Your task to perform on an android device: Search for seafood restaurants on Google Maps Image 0: 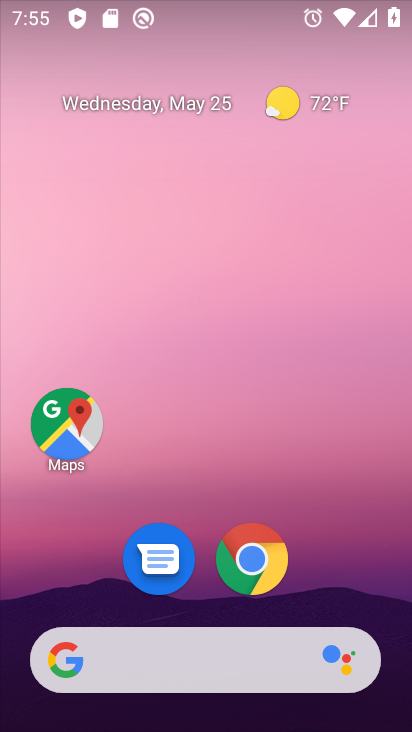
Step 0: drag from (201, 653) to (241, 217)
Your task to perform on an android device: Search for seafood restaurants on Google Maps Image 1: 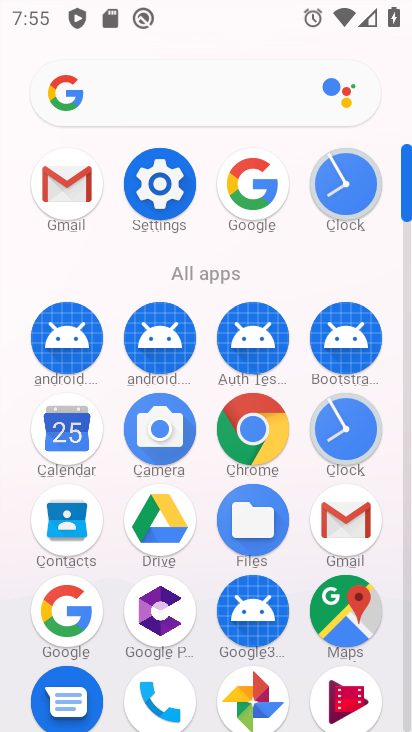
Step 1: click (339, 616)
Your task to perform on an android device: Search for seafood restaurants on Google Maps Image 2: 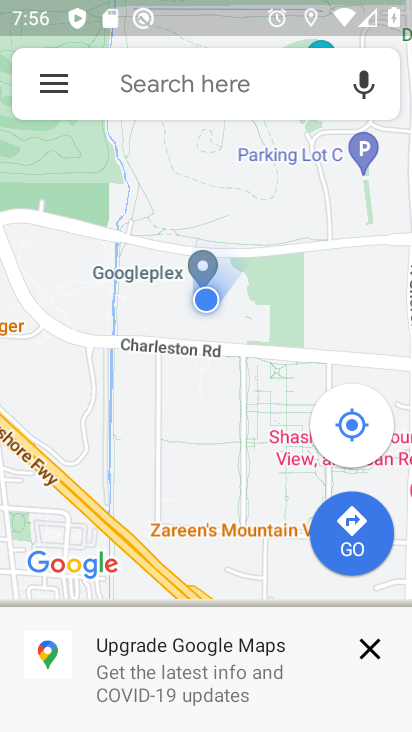
Step 2: click (205, 81)
Your task to perform on an android device: Search for seafood restaurants on Google Maps Image 3: 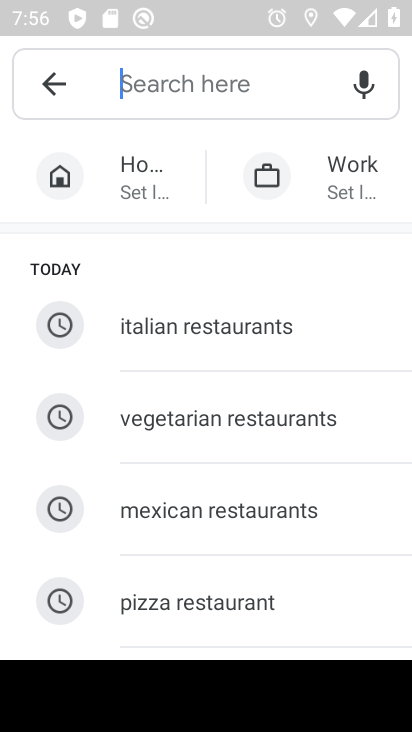
Step 3: drag from (216, 551) to (240, 170)
Your task to perform on an android device: Search for seafood restaurants on Google Maps Image 4: 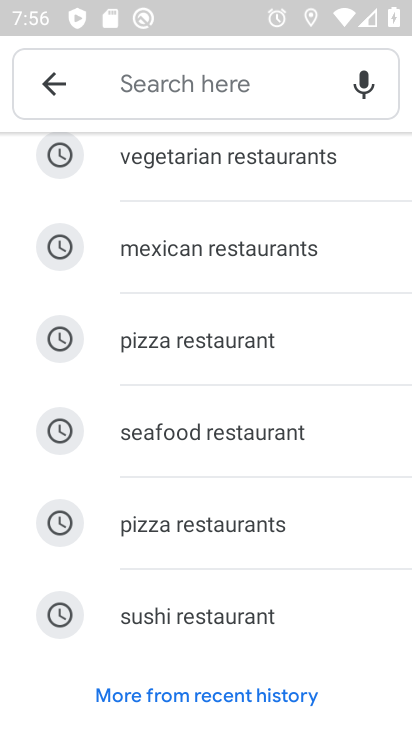
Step 4: click (182, 449)
Your task to perform on an android device: Search for seafood restaurants on Google Maps Image 5: 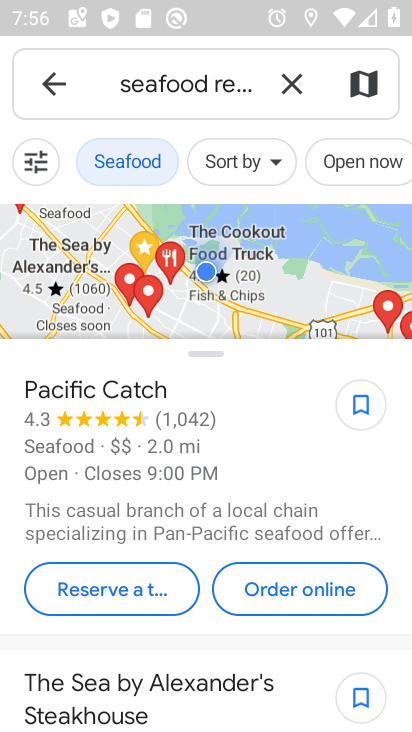
Step 5: task complete